Your task to perform on an android device: find photos in the google photos app Image 0: 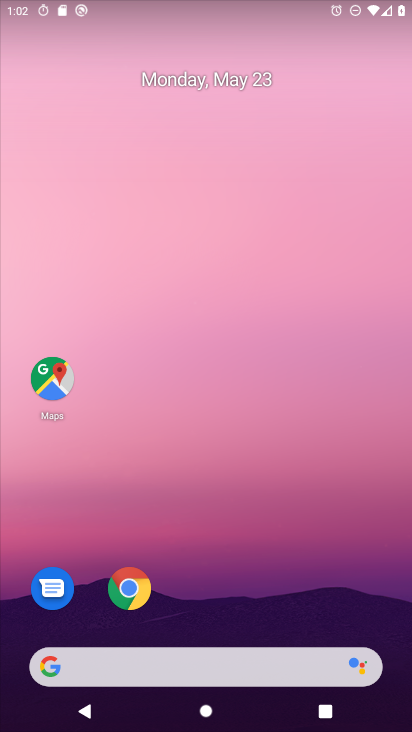
Step 0: drag from (272, 695) to (231, 149)
Your task to perform on an android device: find photos in the google photos app Image 1: 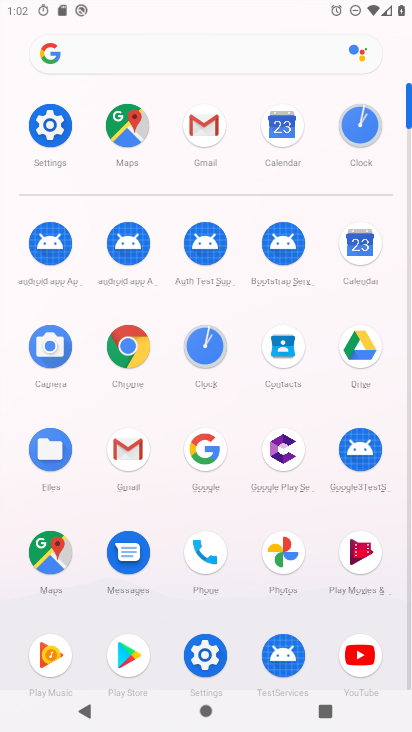
Step 1: click (282, 565)
Your task to perform on an android device: find photos in the google photos app Image 2: 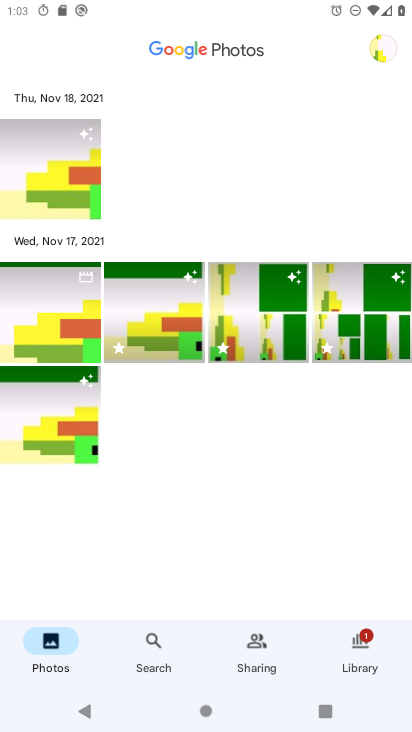
Step 2: task complete